Your task to perform on an android device: What's the weather going to be this weekend? Image 0: 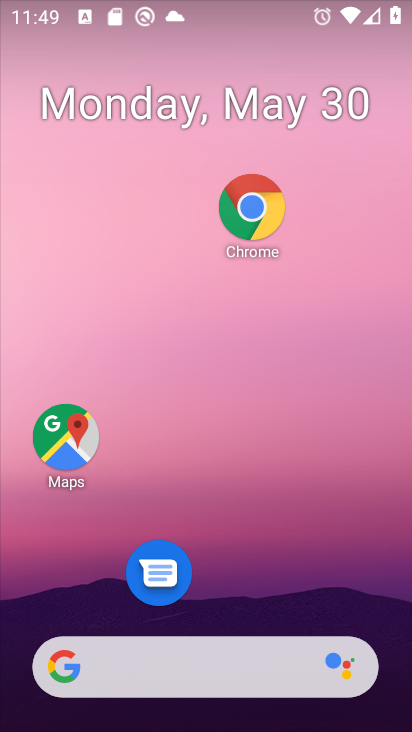
Step 0: drag from (235, 662) to (275, 99)
Your task to perform on an android device: What's the weather going to be this weekend? Image 1: 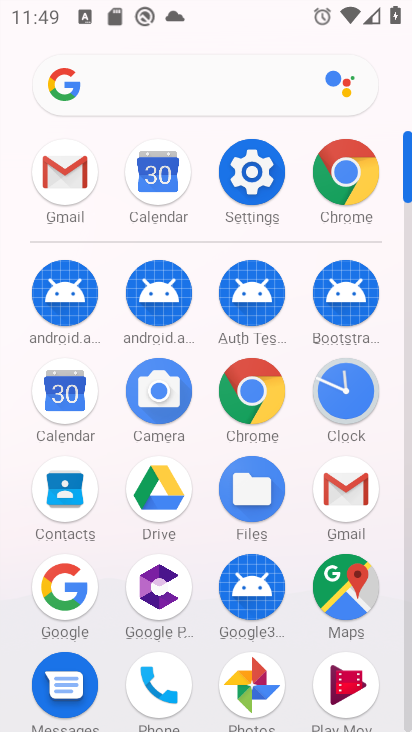
Step 1: click (70, 585)
Your task to perform on an android device: What's the weather going to be this weekend? Image 2: 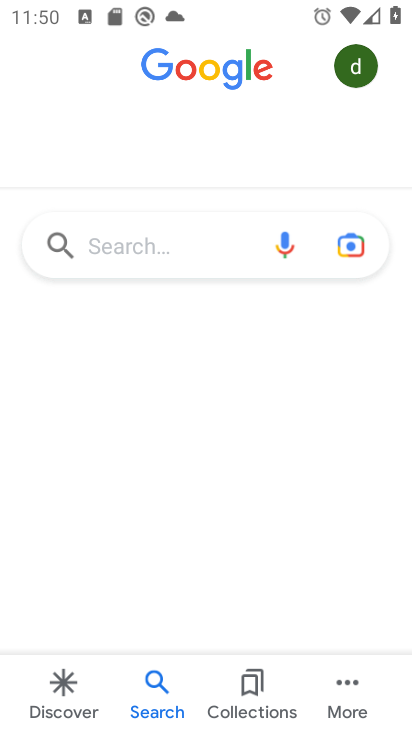
Step 2: click (172, 243)
Your task to perform on an android device: What's the weather going to be this weekend? Image 3: 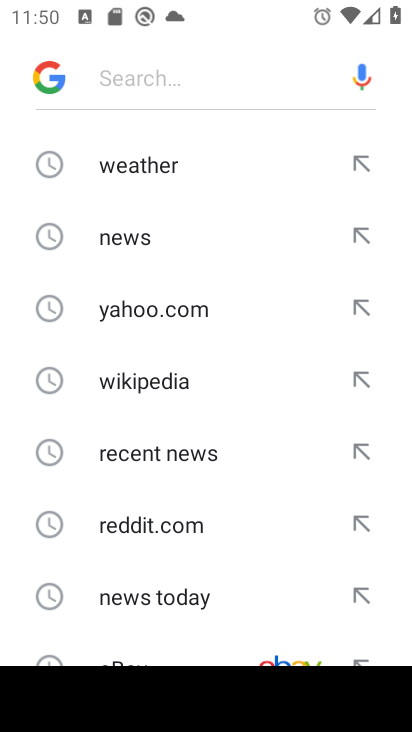
Step 3: click (193, 175)
Your task to perform on an android device: What's the weather going to be this weekend? Image 4: 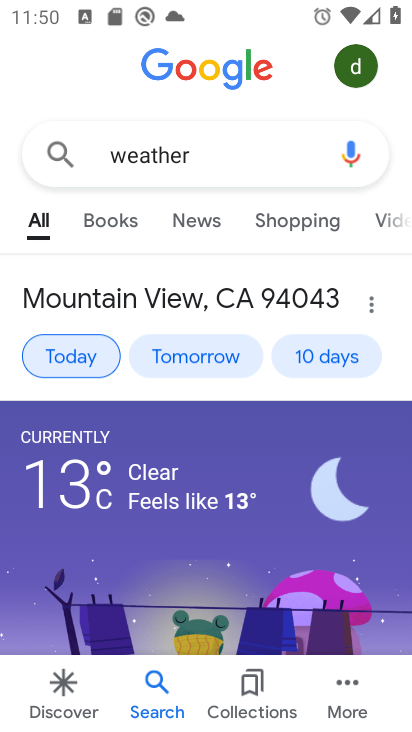
Step 4: click (310, 361)
Your task to perform on an android device: What's the weather going to be this weekend? Image 5: 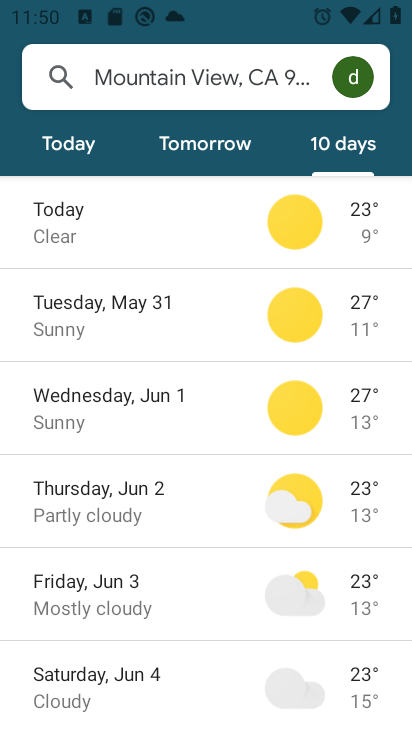
Step 5: task complete